Your task to perform on an android device: uninstall "TextNow: Call + Text Unlimited" Image 0: 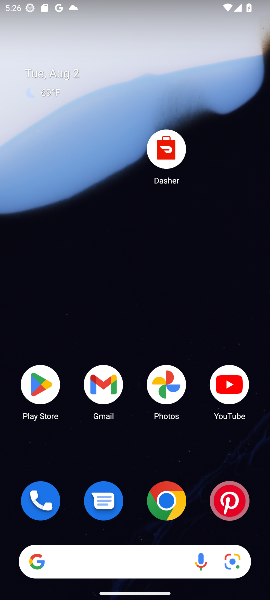
Step 0: click (36, 381)
Your task to perform on an android device: uninstall "TextNow: Call + Text Unlimited" Image 1: 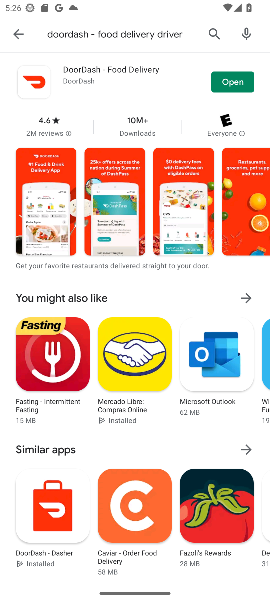
Step 1: click (214, 32)
Your task to perform on an android device: uninstall "TextNow: Call + Text Unlimited" Image 2: 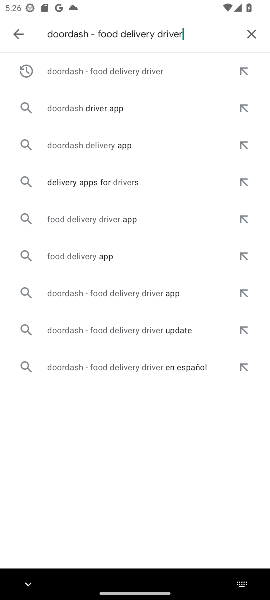
Step 2: click (247, 38)
Your task to perform on an android device: uninstall "TextNow: Call + Text Unlimited" Image 3: 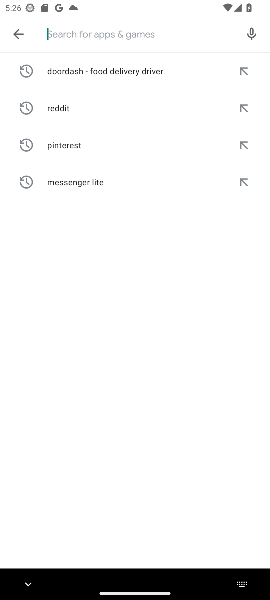
Step 3: type "TextNow: Call + Text Unlimited"
Your task to perform on an android device: uninstall "TextNow: Call + Text Unlimited" Image 4: 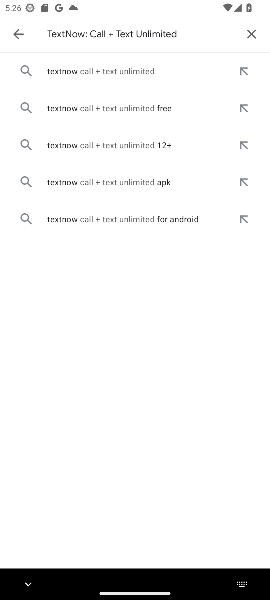
Step 4: click (106, 76)
Your task to perform on an android device: uninstall "TextNow: Call + Text Unlimited" Image 5: 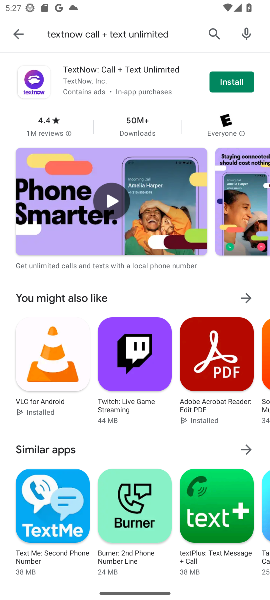
Step 5: task complete